Your task to perform on an android device: read, delete, or share a saved page in the chrome app Image 0: 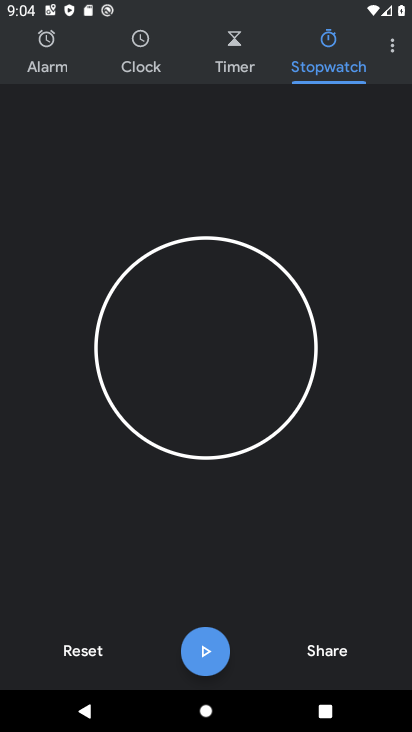
Step 0: press home button
Your task to perform on an android device: read, delete, or share a saved page in the chrome app Image 1: 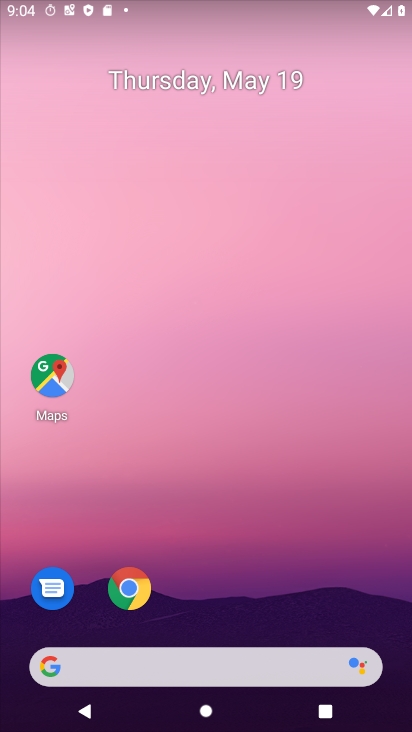
Step 1: click (134, 592)
Your task to perform on an android device: read, delete, or share a saved page in the chrome app Image 2: 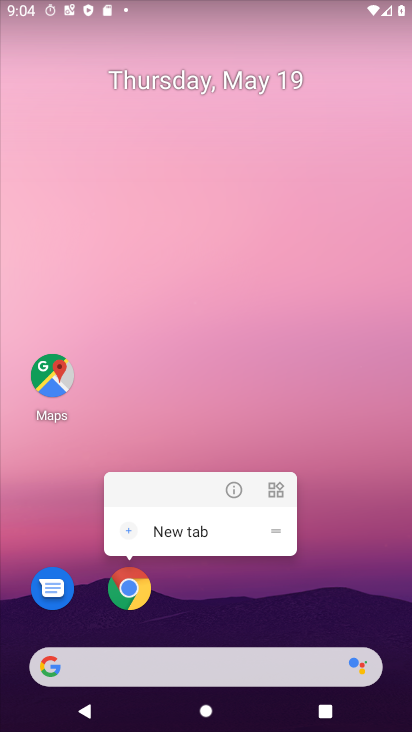
Step 2: click (126, 588)
Your task to perform on an android device: read, delete, or share a saved page in the chrome app Image 3: 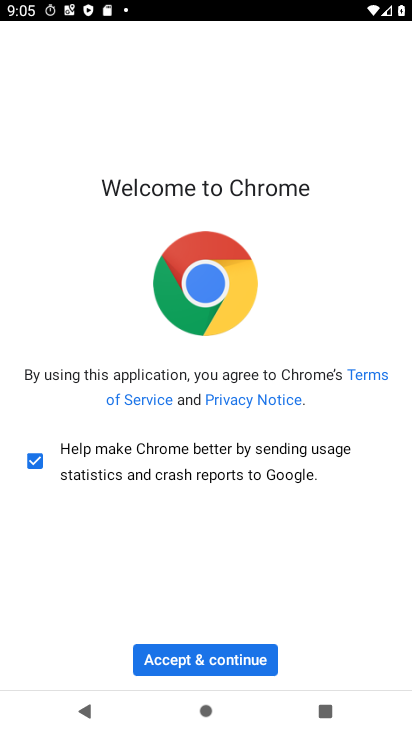
Step 3: click (233, 662)
Your task to perform on an android device: read, delete, or share a saved page in the chrome app Image 4: 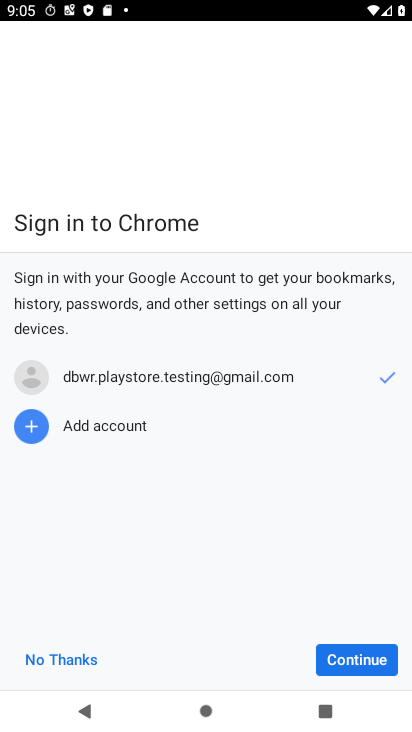
Step 4: click (357, 663)
Your task to perform on an android device: read, delete, or share a saved page in the chrome app Image 5: 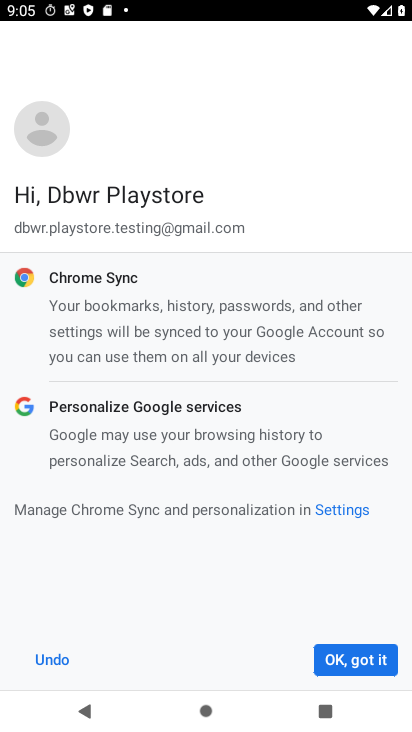
Step 5: click (357, 663)
Your task to perform on an android device: read, delete, or share a saved page in the chrome app Image 6: 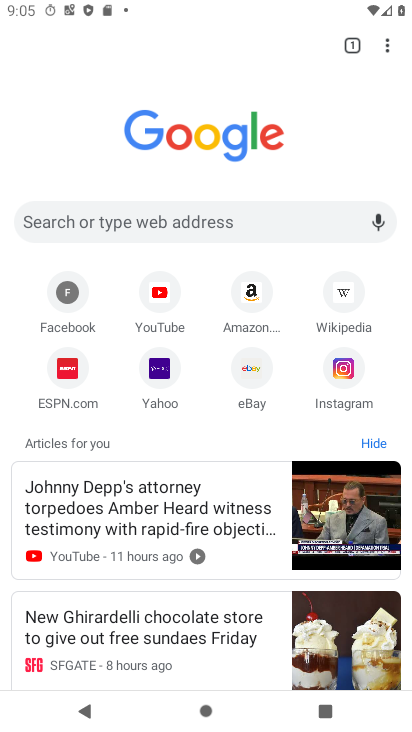
Step 6: drag from (383, 45) to (276, 378)
Your task to perform on an android device: read, delete, or share a saved page in the chrome app Image 7: 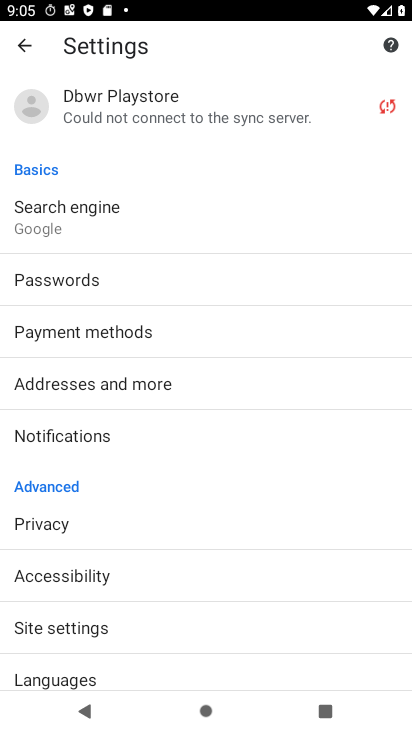
Step 7: click (22, 43)
Your task to perform on an android device: read, delete, or share a saved page in the chrome app Image 8: 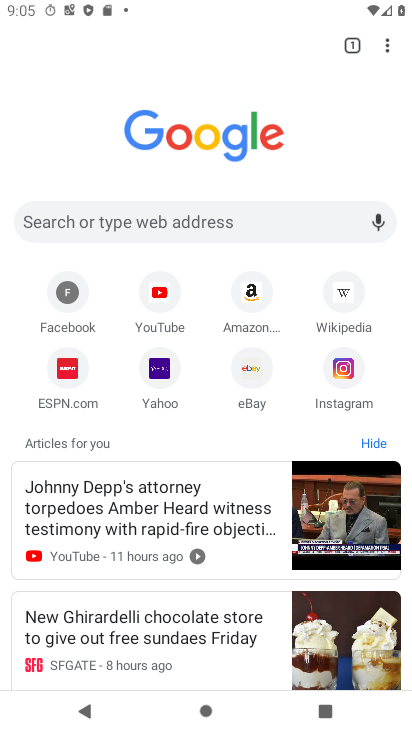
Step 8: drag from (387, 44) to (230, 303)
Your task to perform on an android device: read, delete, or share a saved page in the chrome app Image 9: 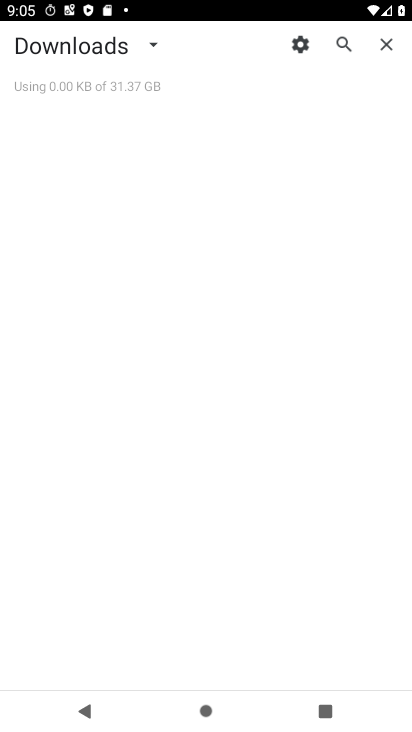
Step 9: click (127, 49)
Your task to perform on an android device: read, delete, or share a saved page in the chrome app Image 10: 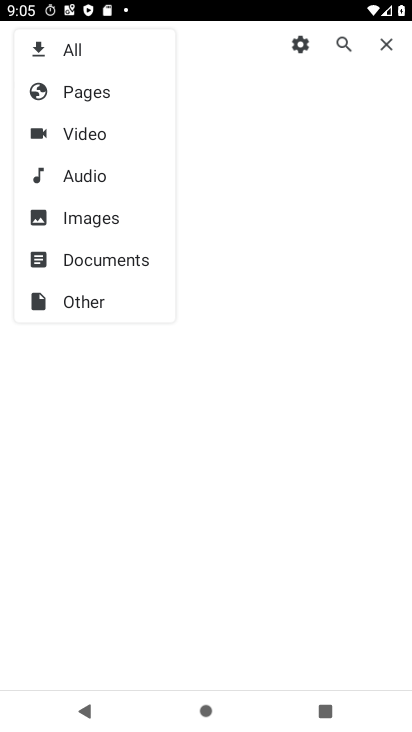
Step 10: click (102, 89)
Your task to perform on an android device: read, delete, or share a saved page in the chrome app Image 11: 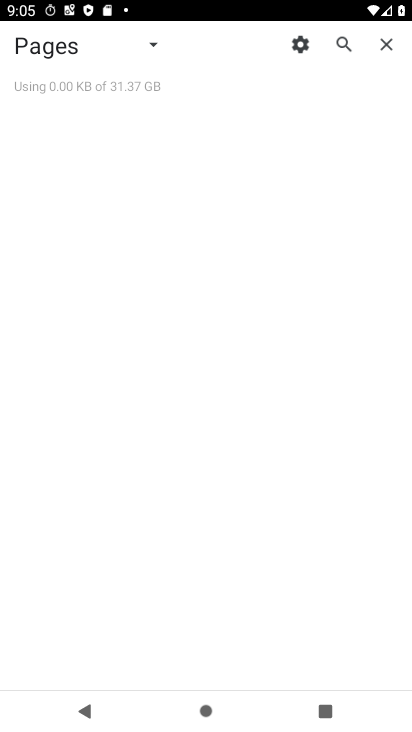
Step 11: task complete